Your task to perform on an android device: Check the weather Image 0: 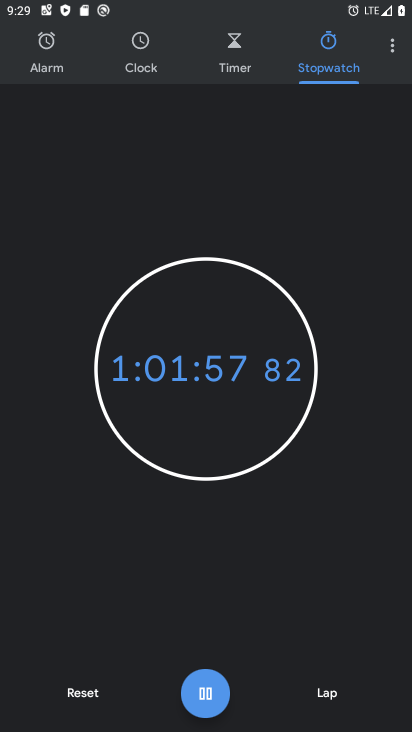
Step 0: press home button
Your task to perform on an android device: Check the weather Image 1: 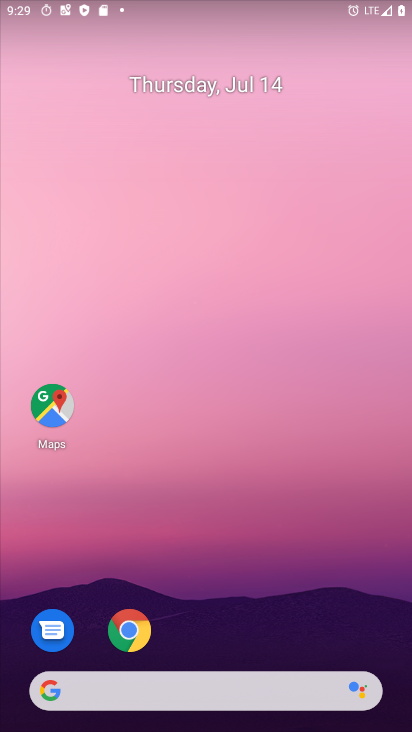
Step 1: drag from (214, 713) to (228, 126)
Your task to perform on an android device: Check the weather Image 2: 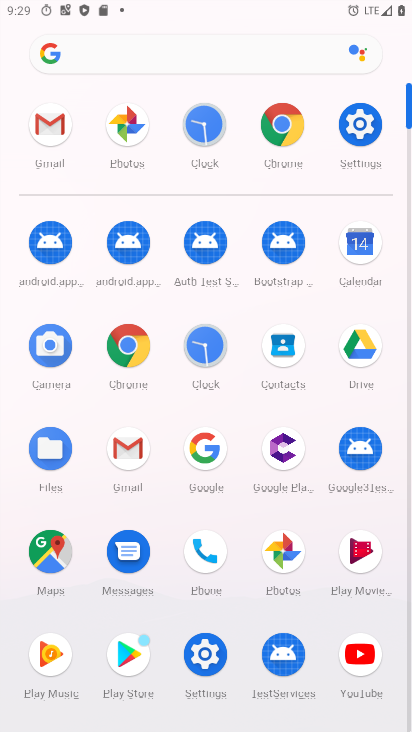
Step 2: click (205, 454)
Your task to perform on an android device: Check the weather Image 3: 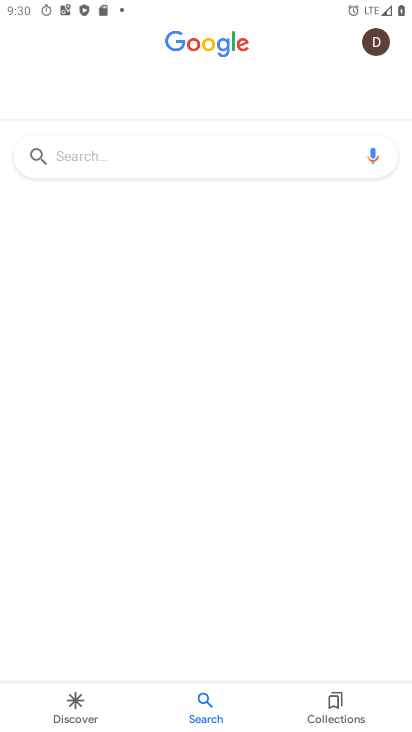
Step 3: click (187, 161)
Your task to perform on an android device: Check the weather Image 4: 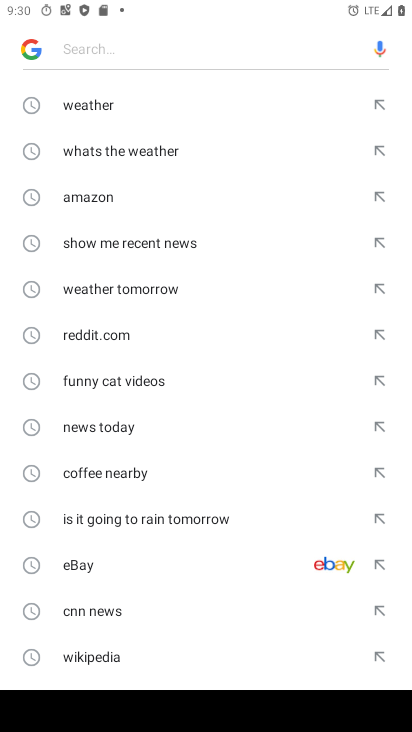
Step 4: click (84, 98)
Your task to perform on an android device: Check the weather Image 5: 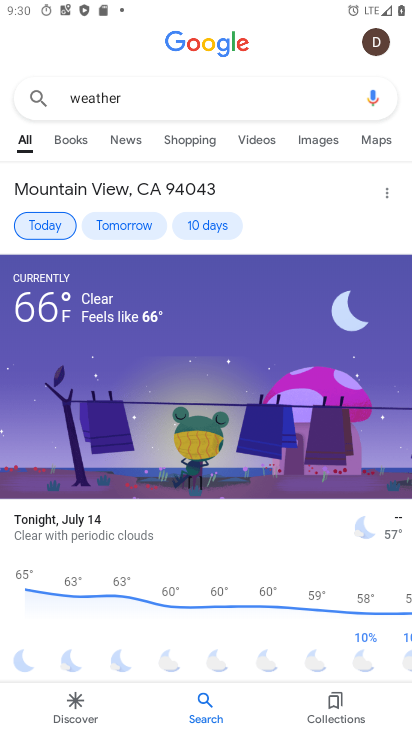
Step 5: task complete